Your task to perform on an android device: What's the weather? Image 0: 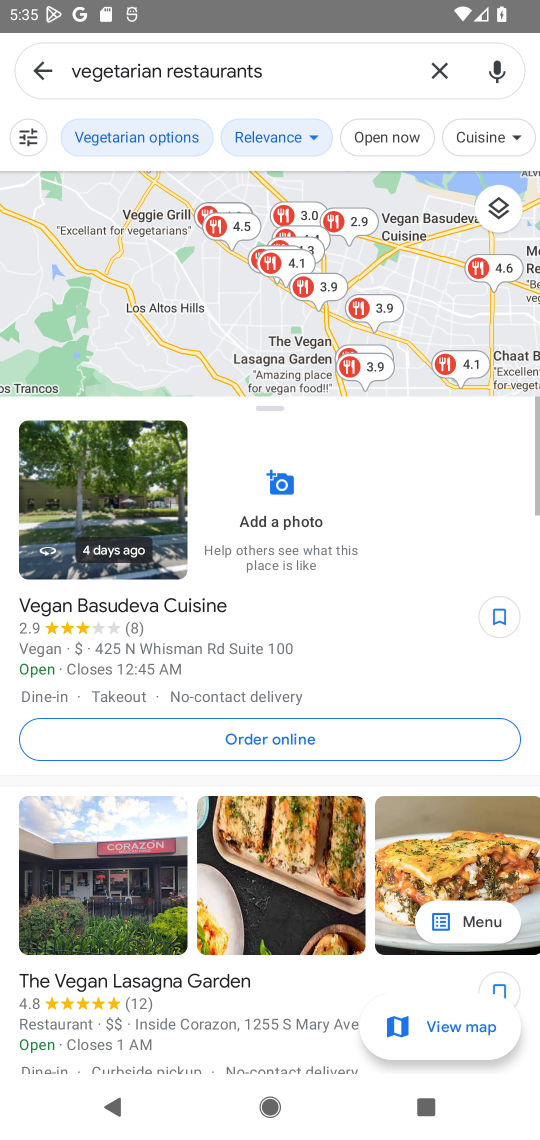
Step 0: press home button
Your task to perform on an android device: What's the weather? Image 1: 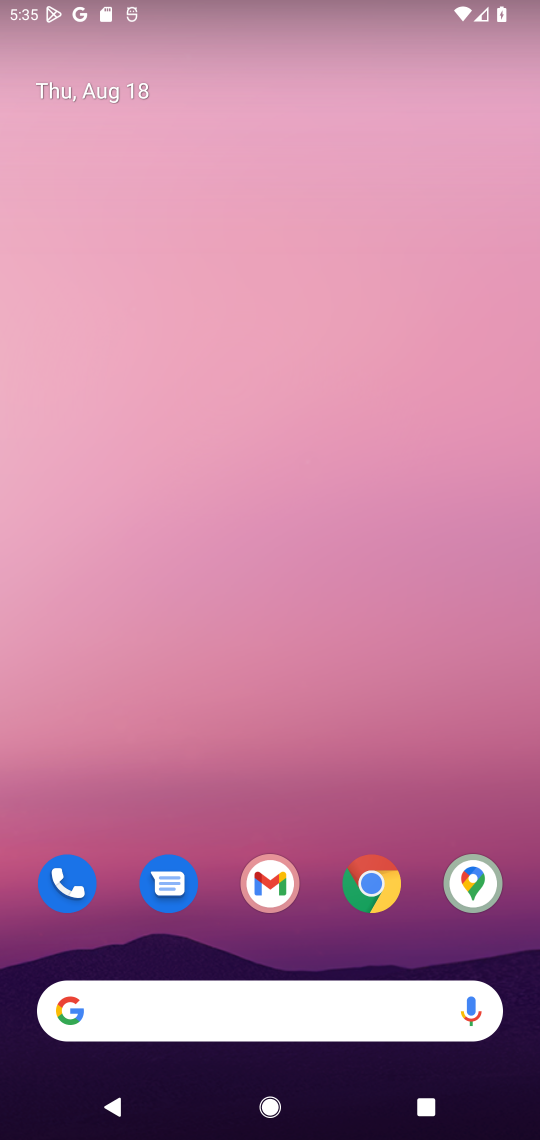
Step 1: drag from (302, 935) to (335, 58)
Your task to perform on an android device: What's the weather? Image 2: 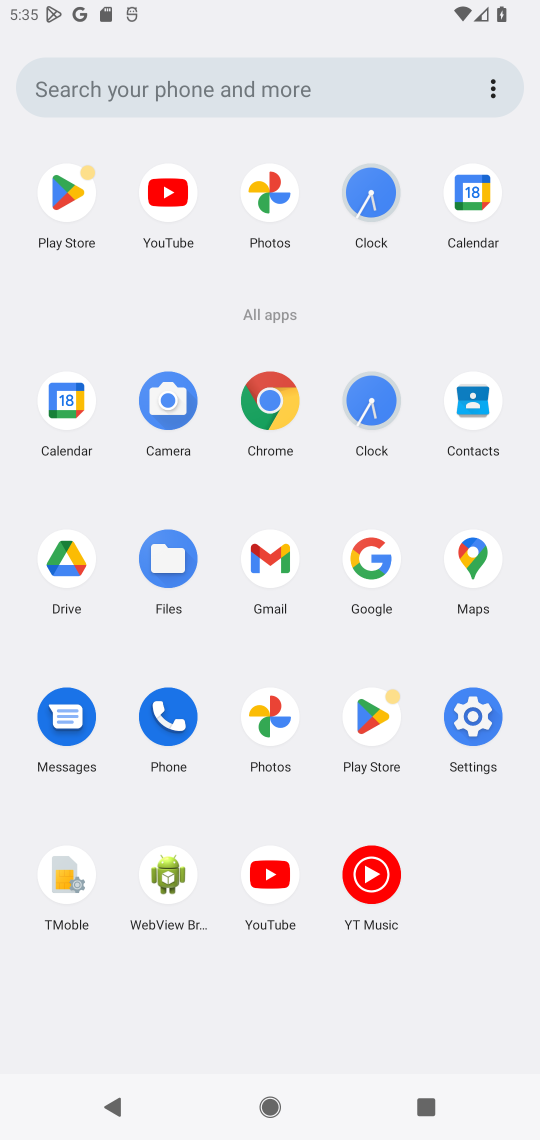
Step 2: click (266, 406)
Your task to perform on an android device: What's the weather? Image 3: 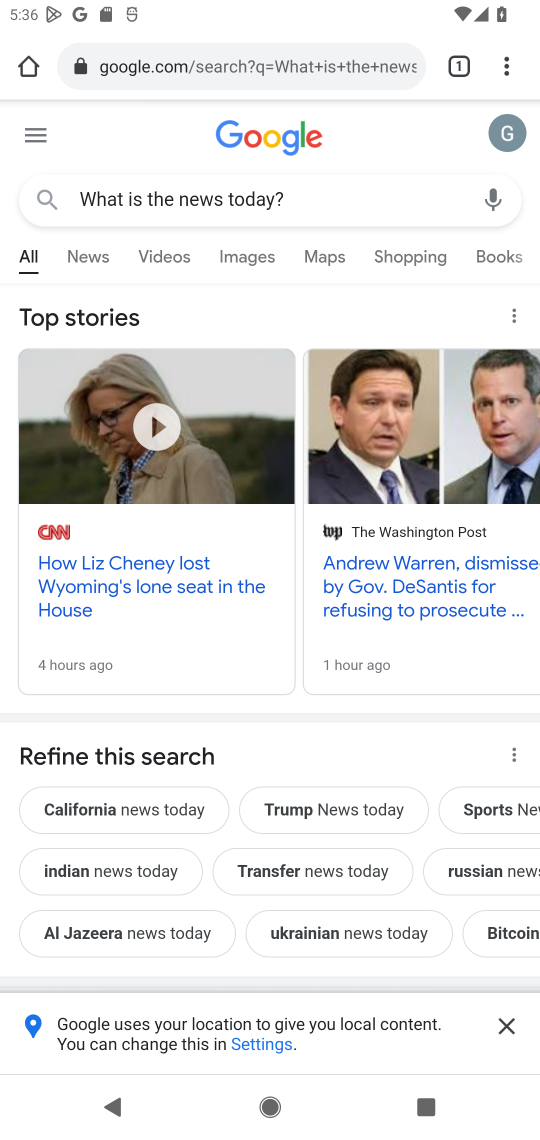
Step 3: click (194, 53)
Your task to perform on an android device: What's the weather? Image 4: 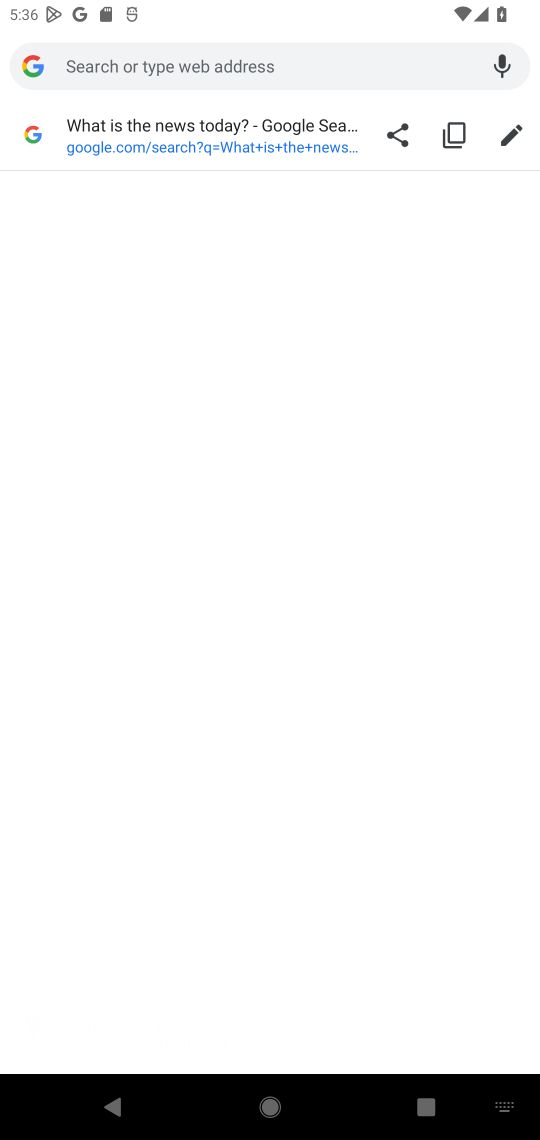
Step 4: type "What's the weather?"
Your task to perform on an android device: What's the weather? Image 5: 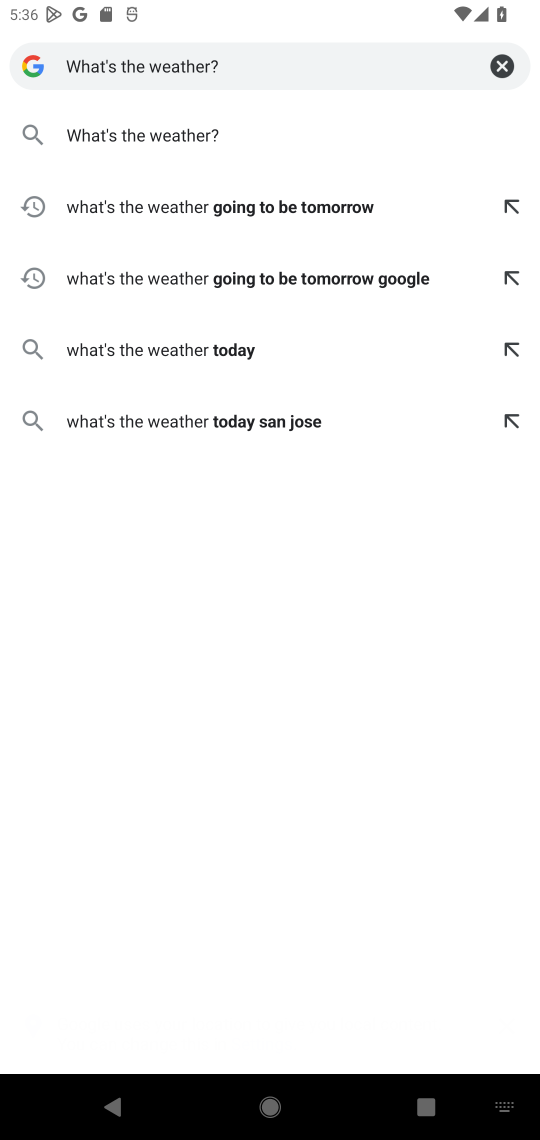
Step 5: click (145, 136)
Your task to perform on an android device: What's the weather? Image 6: 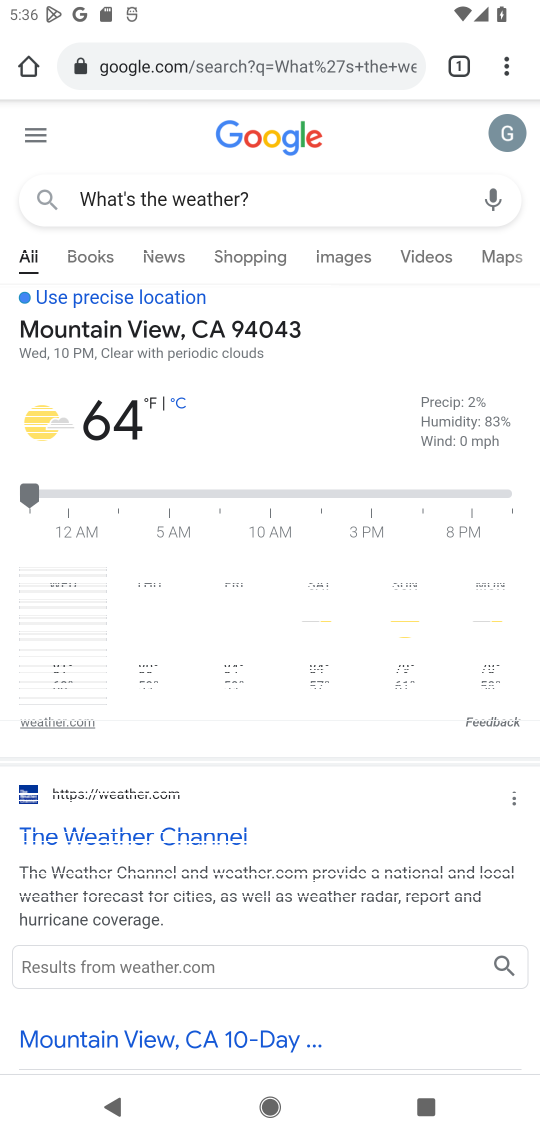
Step 6: task complete